Your task to perform on an android device: Open Google Chrome and click the shortcut for Amazon.com Image 0: 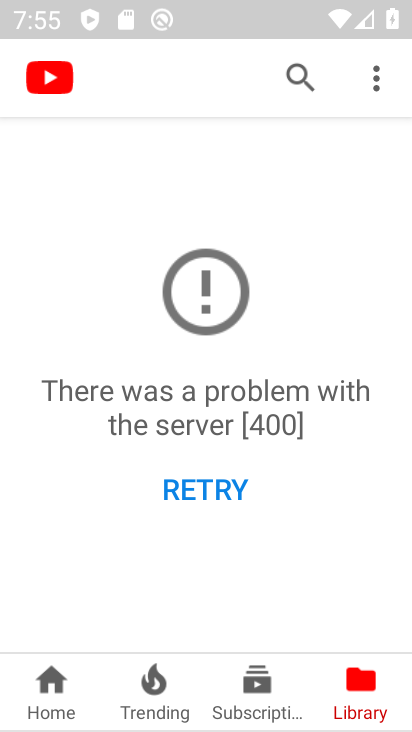
Step 0: press back button
Your task to perform on an android device: Open Google Chrome and click the shortcut for Amazon.com Image 1: 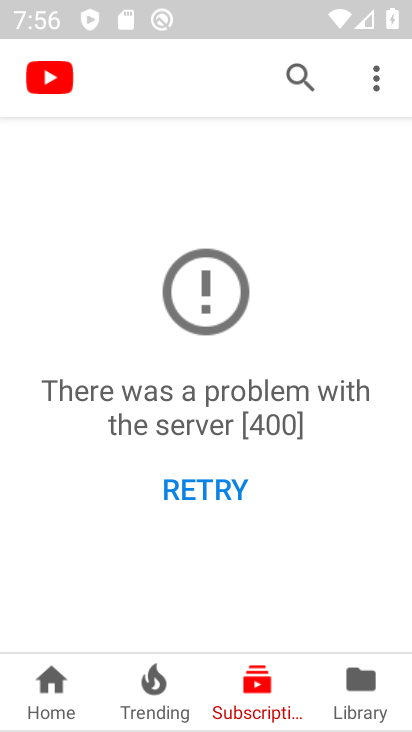
Step 1: press back button
Your task to perform on an android device: Open Google Chrome and click the shortcut for Amazon.com Image 2: 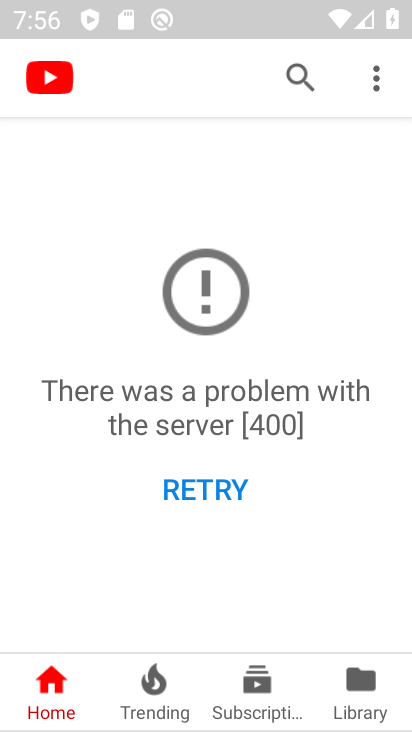
Step 2: press home button
Your task to perform on an android device: Open Google Chrome and click the shortcut for Amazon.com Image 3: 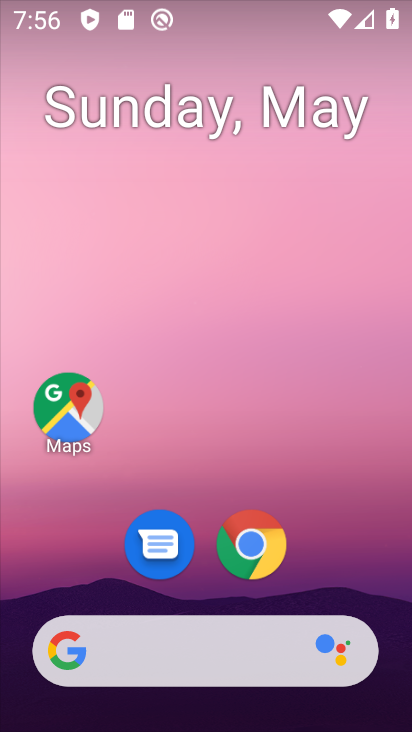
Step 3: drag from (355, 599) to (272, 0)
Your task to perform on an android device: Open Google Chrome and click the shortcut for Amazon.com Image 4: 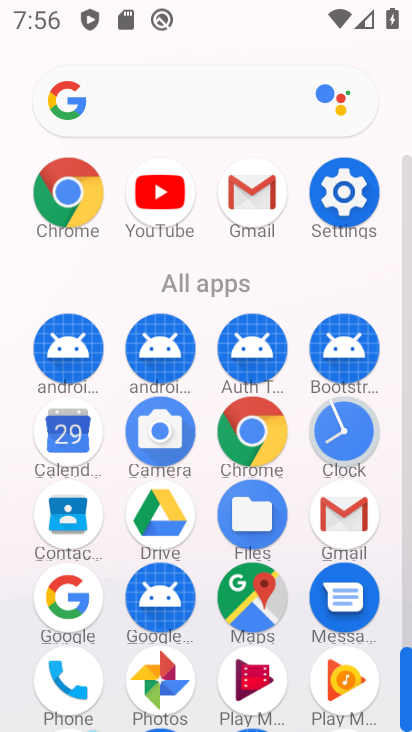
Step 4: click (250, 428)
Your task to perform on an android device: Open Google Chrome and click the shortcut for Amazon.com Image 5: 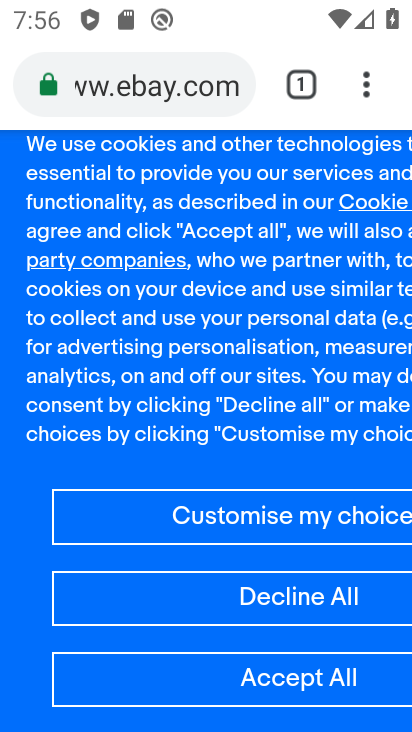
Step 5: click (163, 69)
Your task to perform on an android device: Open Google Chrome and click the shortcut for Amazon.com Image 6: 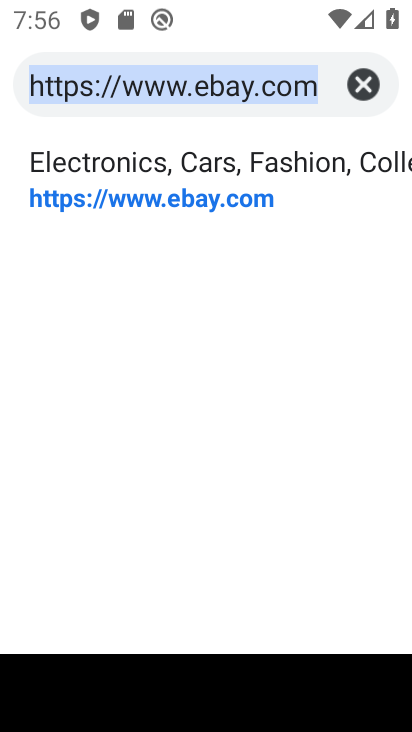
Step 6: click (358, 85)
Your task to perform on an android device: Open Google Chrome and click the shortcut for Amazon.com Image 7: 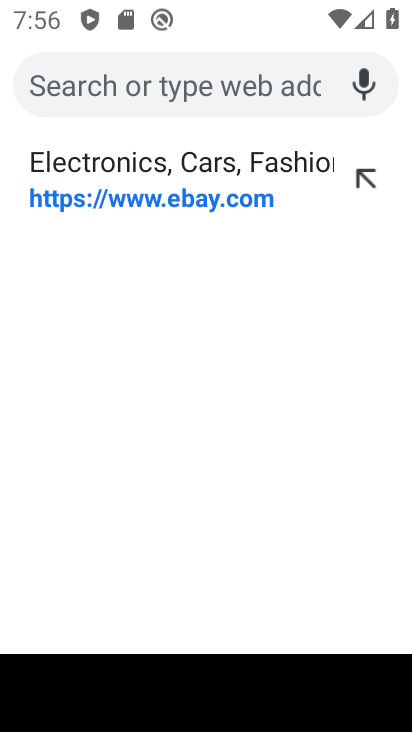
Step 7: type " Amazon.com"
Your task to perform on an android device: Open Google Chrome and click the shortcut for Amazon.com Image 8: 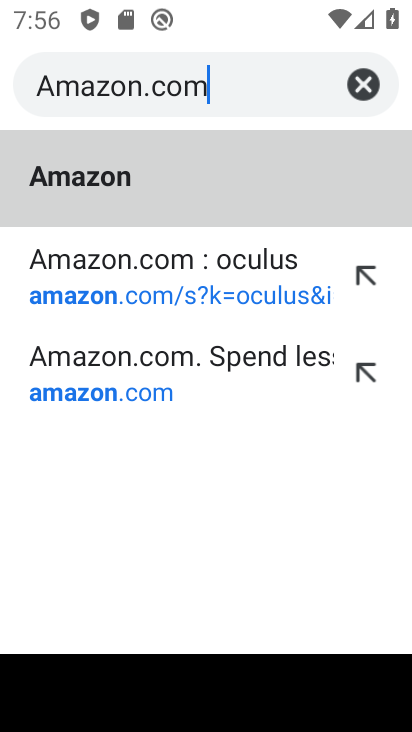
Step 8: type ""
Your task to perform on an android device: Open Google Chrome and click the shortcut for Amazon.com Image 9: 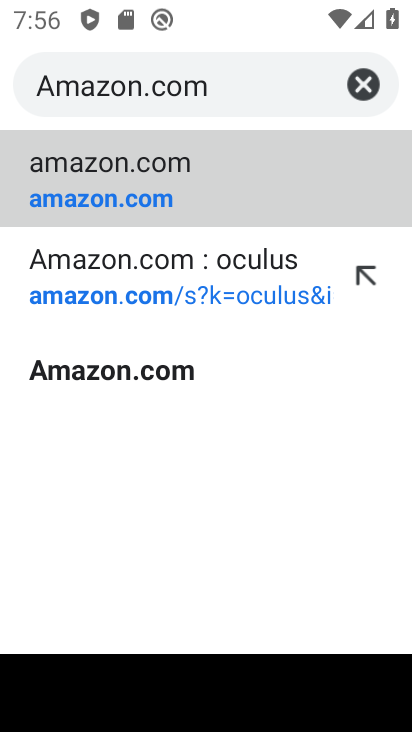
Step 9: click (197, 169)
Your task to perform on an android device: Open Google Chrome and click the shortcut for Amazon.com Image 10: 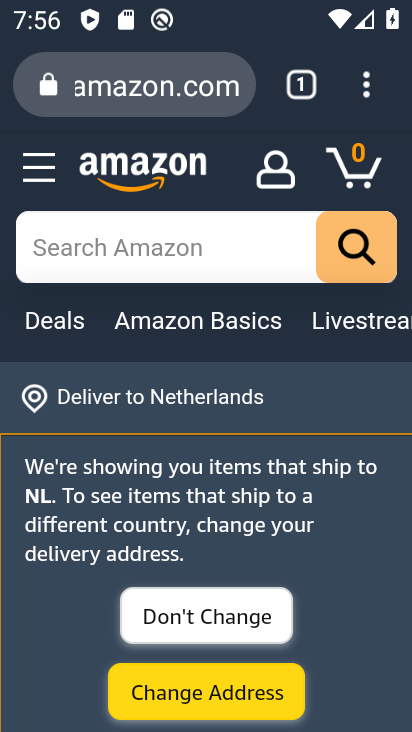
Step 10: task complete